Your task to perform on an android device: Go to settings Image 0: 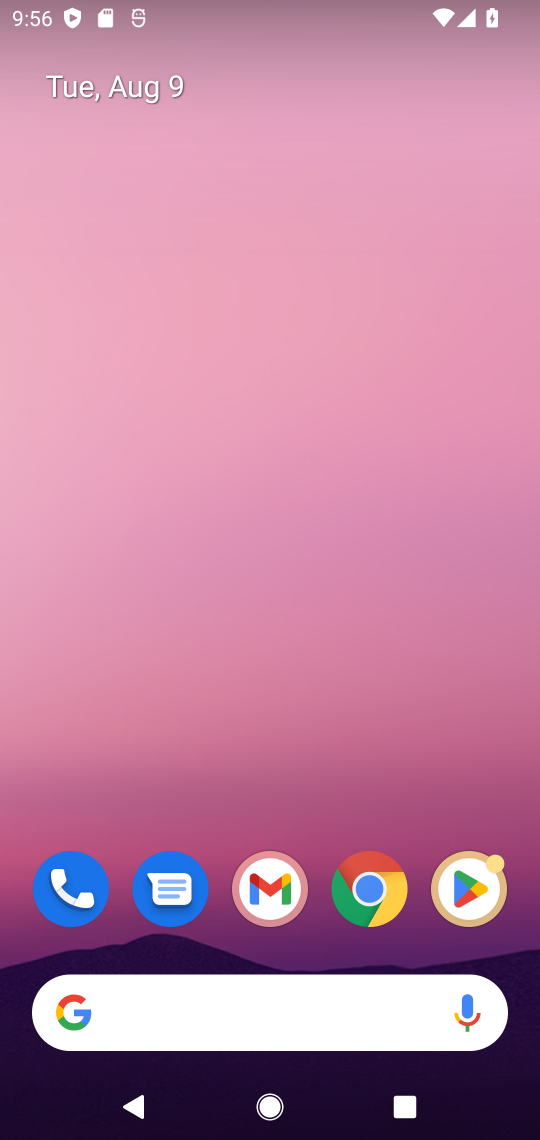
Step 0: drag from (146, 896) to (382, 79)
Your task to perform on an android device: Go to settings Image 1: 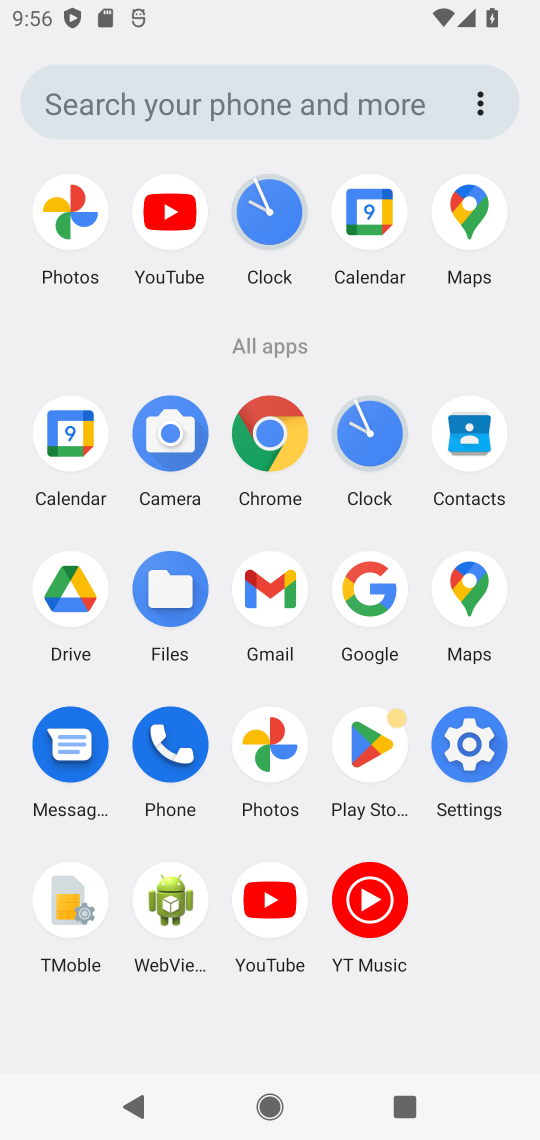
Step 1: click (486, 754)
Your task to perform on an android device: Go to settings Image 2: 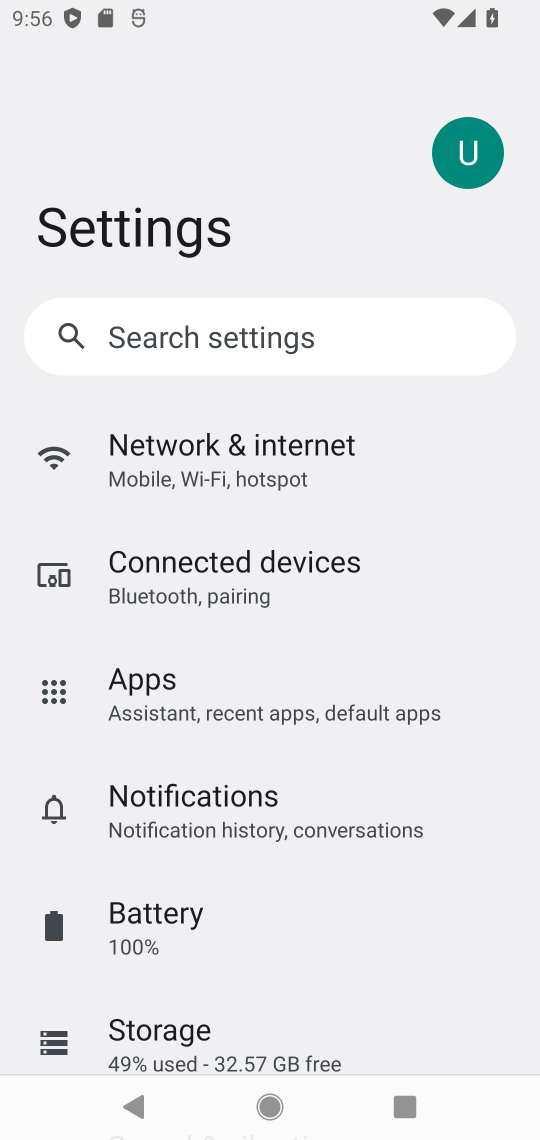
Step 2: task complete